Your task to perform on an android device: turn on airplane mode Image 0: 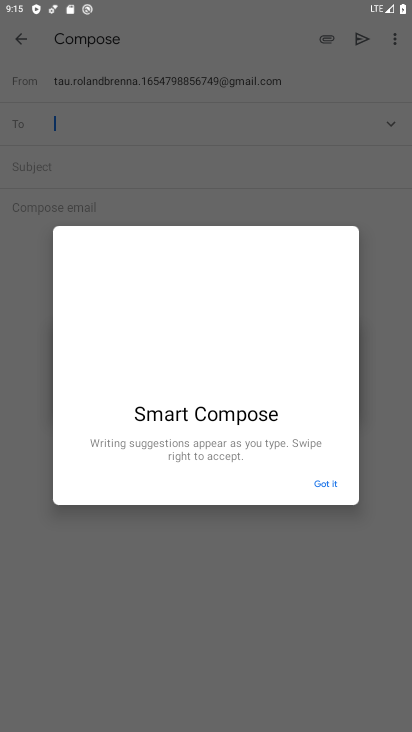
Step 0: press home button
Your task to perform on an android device: turn on airplane mode Image 1: 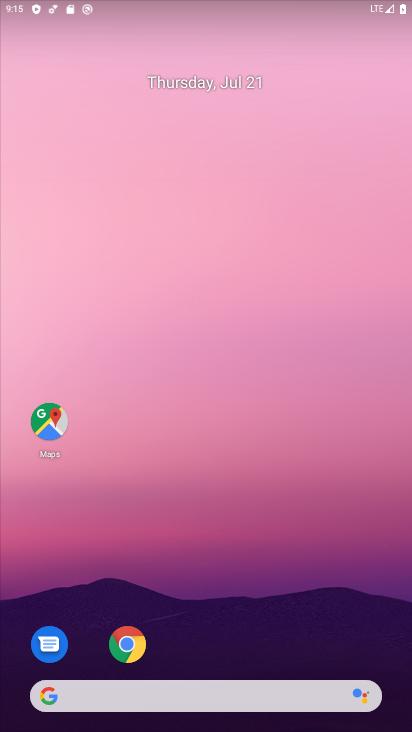
Step 1: drag from (225, 656) to (293, 38)
Your task to perform on an android device: turn on airplane mode Image 2: 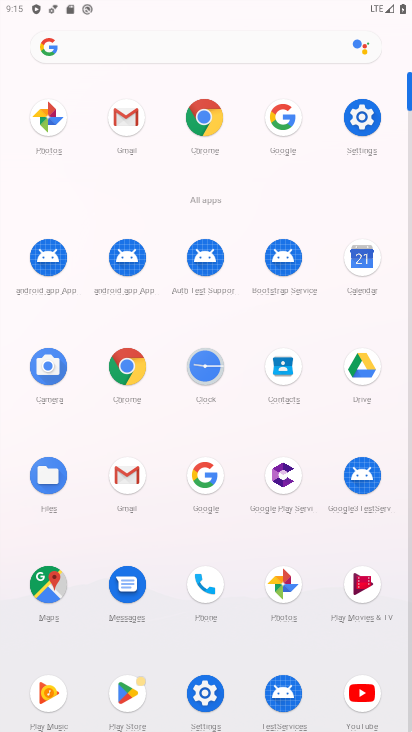
Step 2: click (360, 112)
Your task to perform on an android device: turn on airplane mode Image 3: 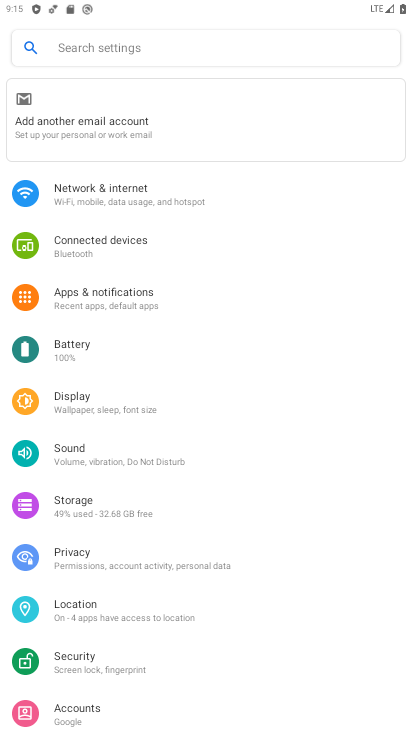
Step 3: click (104, 200)
Your task to perform on an android device: turn on airplane mode Image 4: 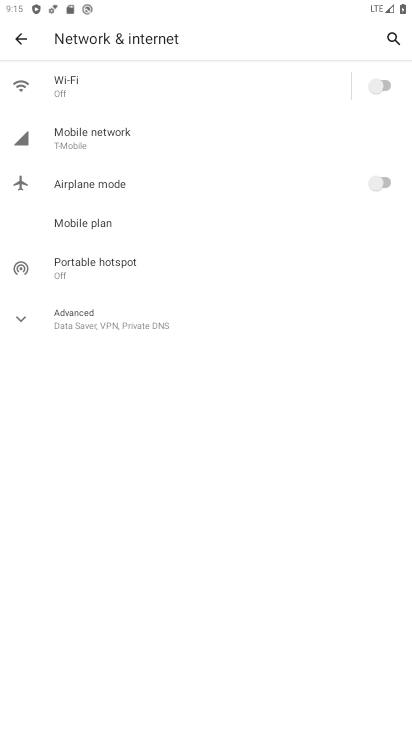
Step 4: click (369, 184)
Your task to perform on an android device: turn on airplane mode Image 5: 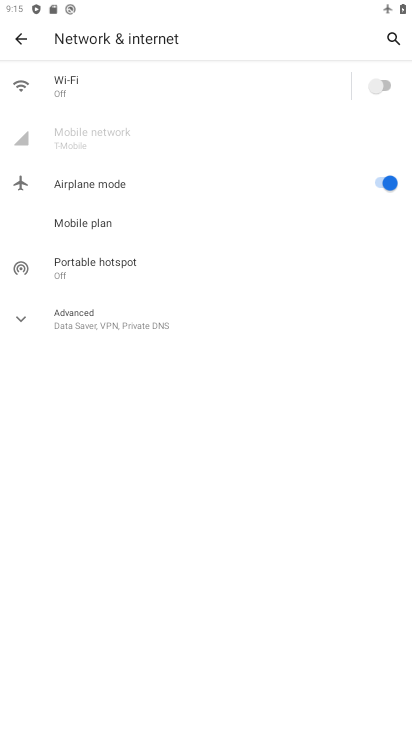
Step 5: task complete